Your task to perform on an android device: Open calendar and show me the fourth week of next month Image 0: 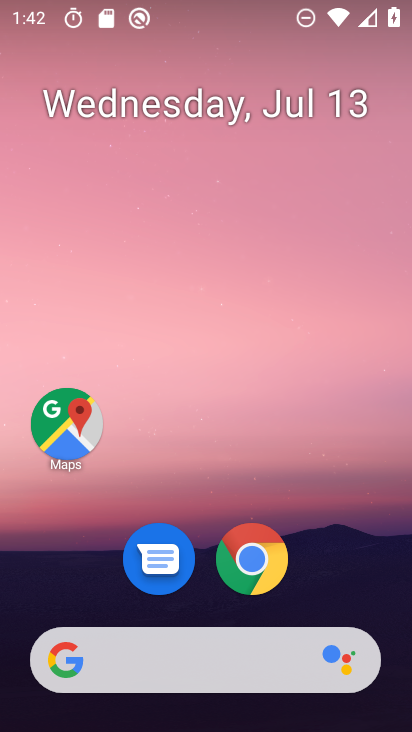
Step 0: drag from (198, 663) to (280, 291)
Your task to perform on an android device: Open calendar and show me the fourth week of next month Image 1: 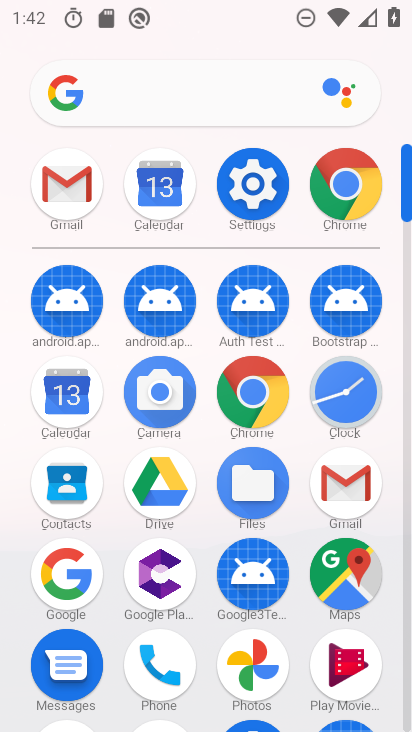
Step 1: click (77, 421)
Your task to perform on an android device: Open calendar and show me the fourth week of next month Image 2: 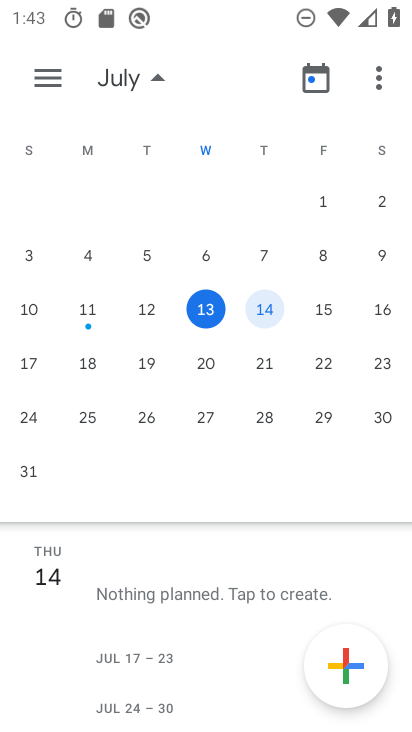
Step 2: drag from (328, 382) to (9, 381)
Your task to perform on an android device: Open calendar and show me the fourth week of next month Image 3: 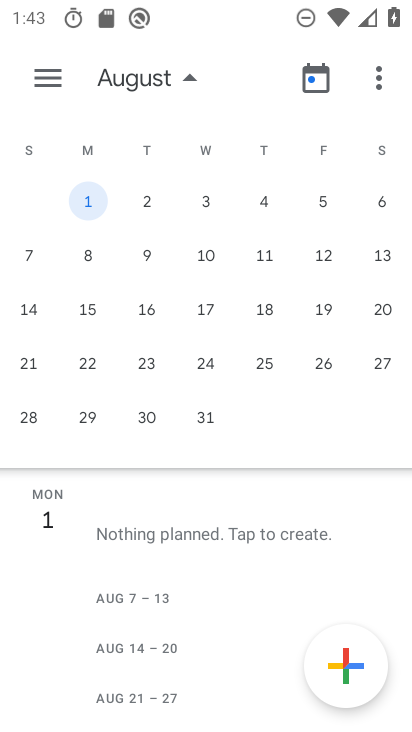
Step 3: click (35, 380)
Your task to perform on an android device: Open calendar and show me the fourth week of next month Image 4: 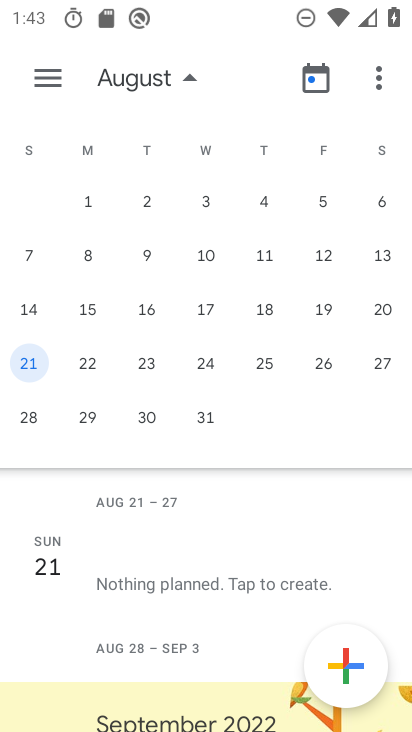
Step 4: task complete